Your task to perform on an android device: Show me productivity apps on the Play Store Image 0: 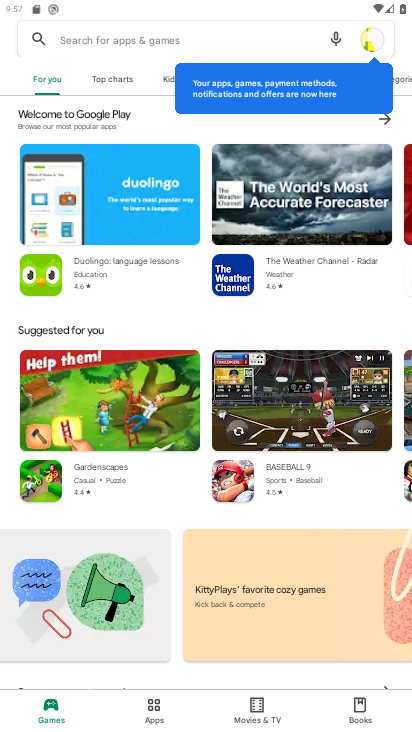
Step 0: click (159, 715)
Your task to perform on an android device: Show me productivity apps on the Play Store Image 1: 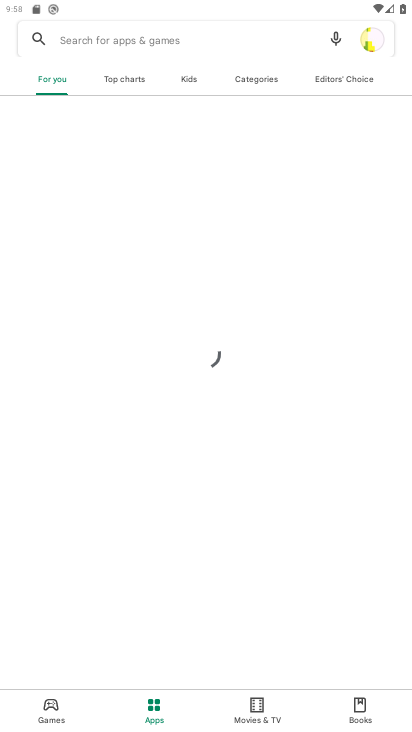
Step 1: click (267, 81)
Your task to perform on an android device: Show me productivity apps on the Play Store Image 2: 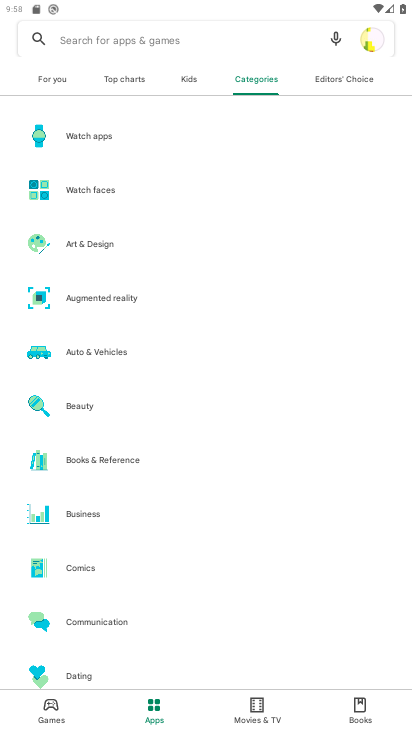
Step 2: drag from (185, 617) to (336, 116)
Your task to perform on an android device: Show me productivity apps on the Play Store Image 3: 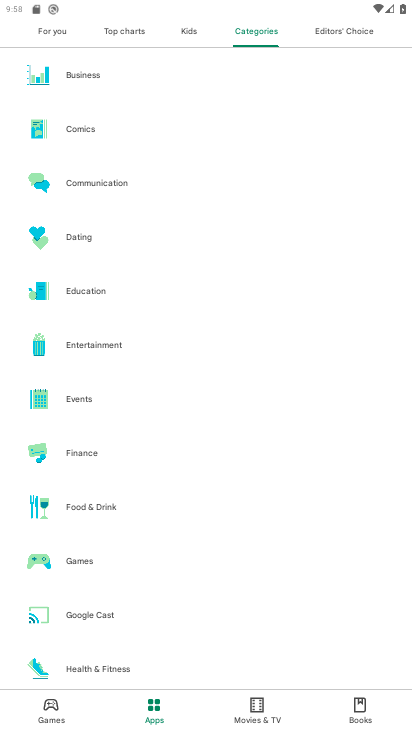
Step 3: drag from (216, 646) to (338, 192)
Your task to perform on an android device: Show me productivity apps on the Play Store Image 4: 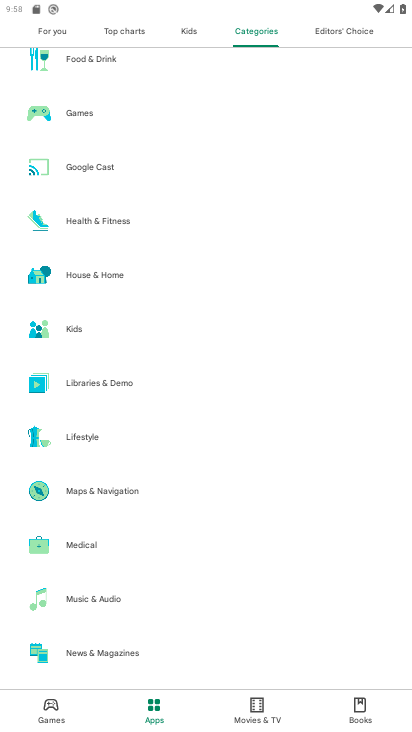
Step 4: drag from (165, 563) to (260, 265)
Your task to perform on an android device: Show me productivity apps on the Play Store Image 5: 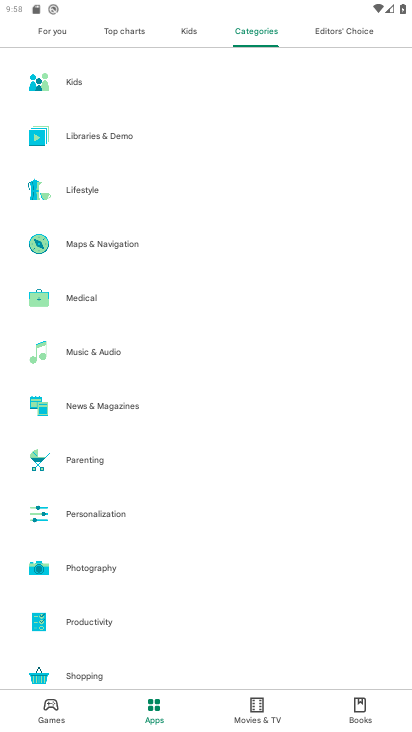
Step 5: click (164, 646)
Your task to perform on an android device: Show me productivity apps on the Play Store Image 6: 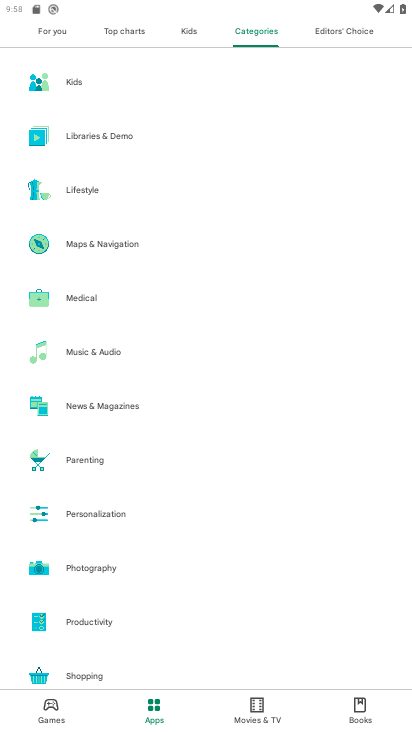
Step 6: click (164, 616)
Your task to perform on an android device: Show me productivity apps on the Play Store Image 7: 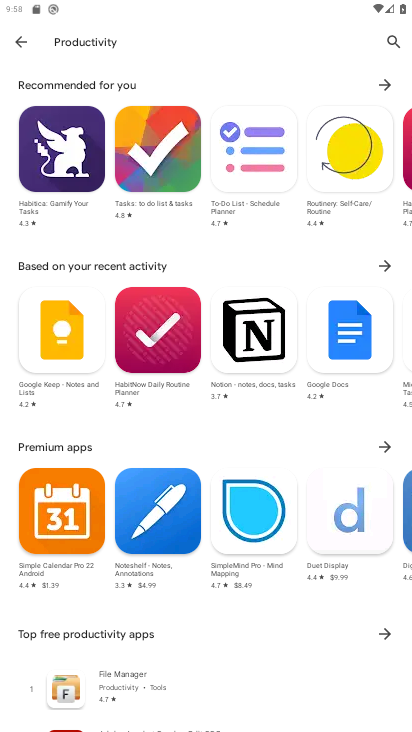
Step 7: task complete